Your task to perform on an android device: toggle show notifications on the lock screen Image 0: 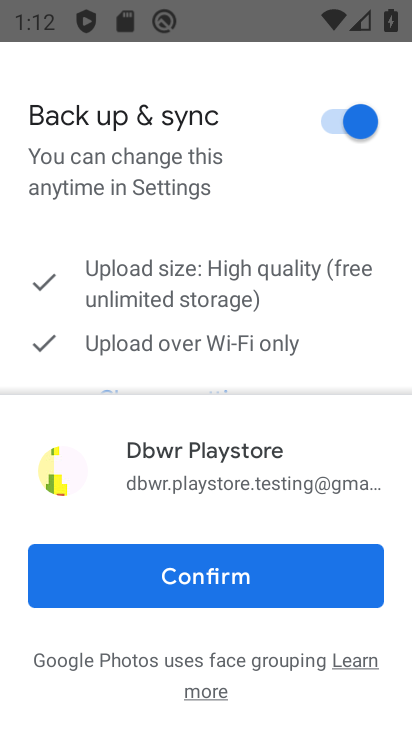
Step 0: press home button
Your task to perform on an android device: toggle show notifications on the lock screen Image 1: 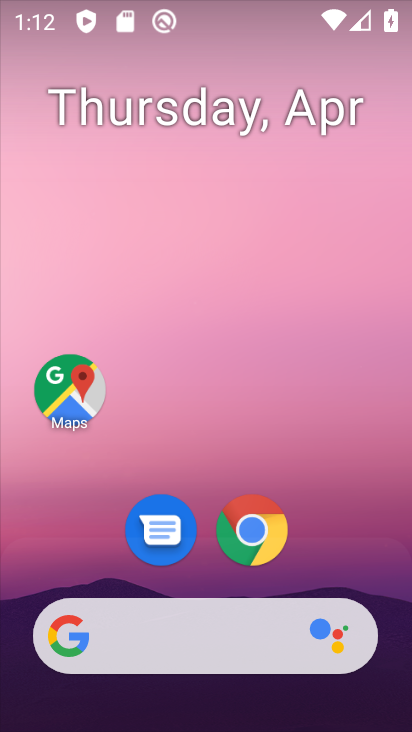
Step 1: drag from (200, 588) to (162, 8)
Your task to perform on an android device: toggle show notifications on the lock screen Image 2: 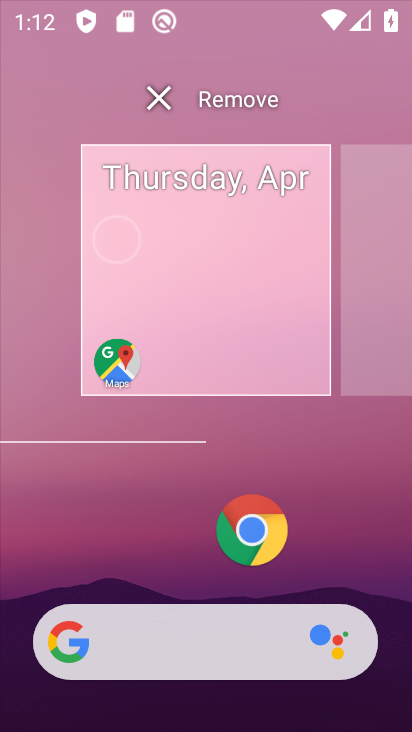
Step 2: drag from (231, 603) to (177, 10)
Your task to perform on an android device: toggle show notifications on the lock screen Image 3: 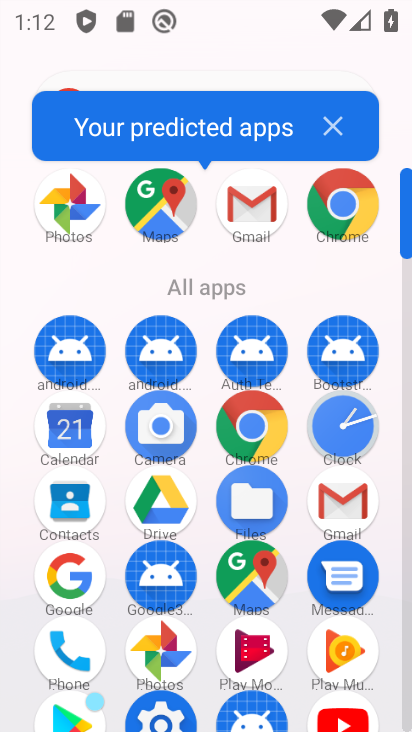
Step 3: drag from (200, 623) to (187, 163)
Your task to perform on an android device: toggle show notifications on the lock screen Image 4: 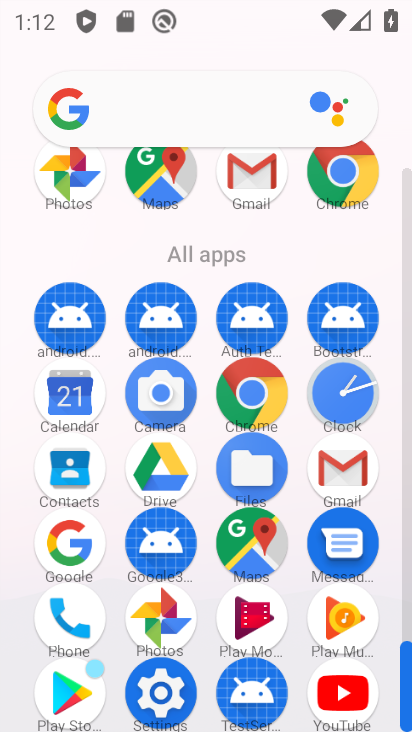
Step 4: click (169, 678)
Your task to perform on an android device: toggle show notifications on the lock screen Image 5: 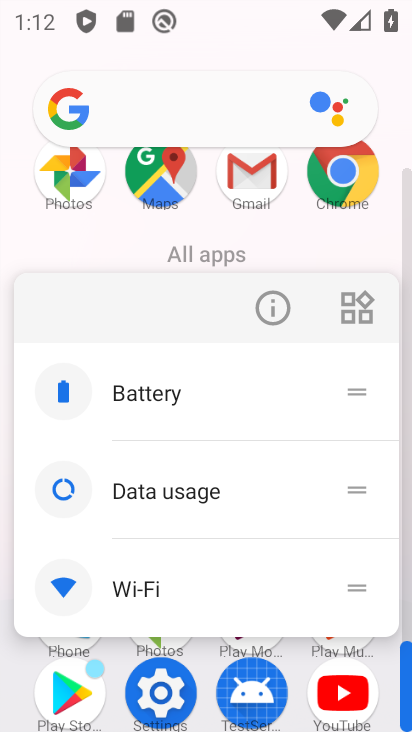
Step 5: click (163, 698)
Your task to perform on an android device: toggle show notifications on the lock screen Image 6: 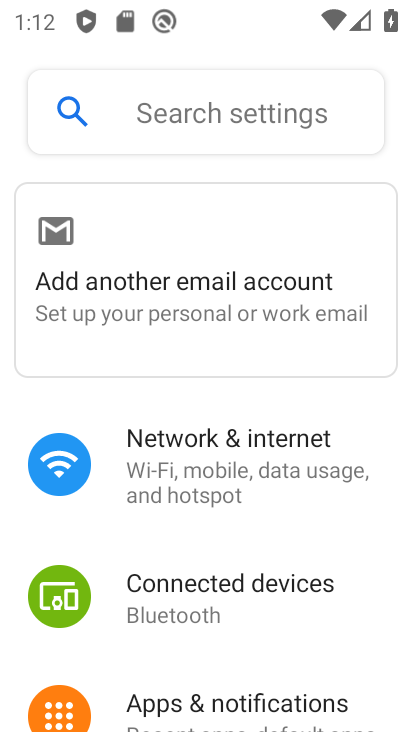
Step 6: click (206, 693)
Your task to perform on an android device: toggle show notifications on the lock screen Image 7: 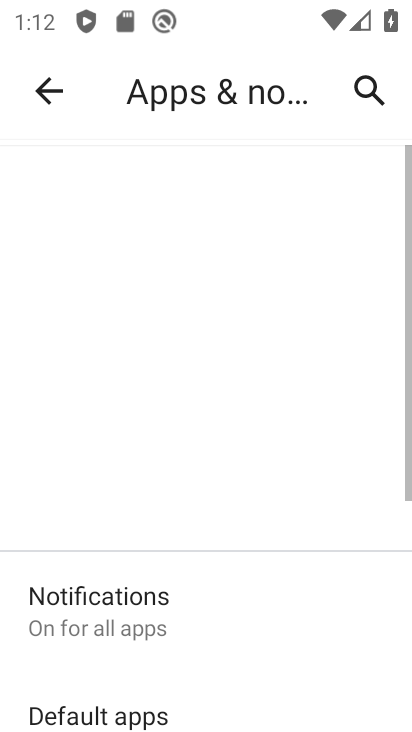
Step 7: click (132, 612)
Your task to perform on an android device: toggle show notifications on the lock screen Image 8: 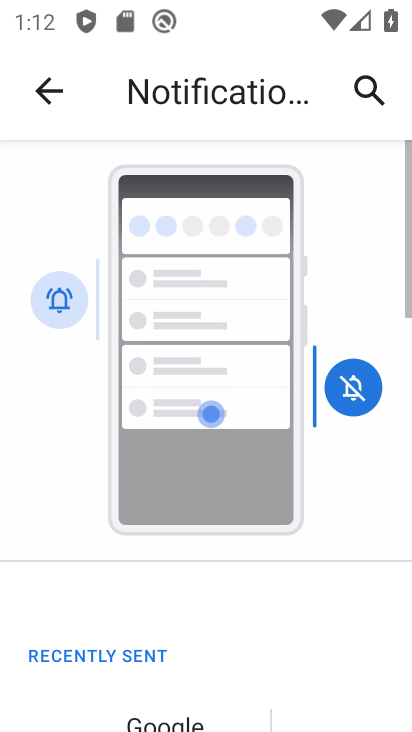
Step 8: drag from (238, 647) to (179, 56)
Your task to perform on an android device: toggle show notifications on the lock screen Image 9: 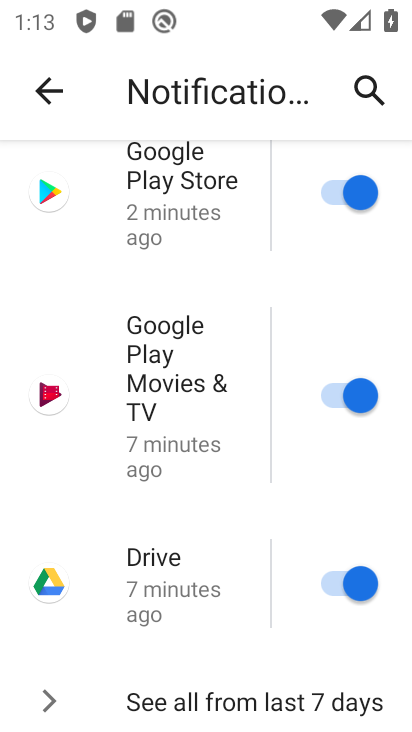
Step 9: drag from (244, 641) to (197, 143)
Your task to perform on an android device: toggle show notifications on the lock screen Image 10: 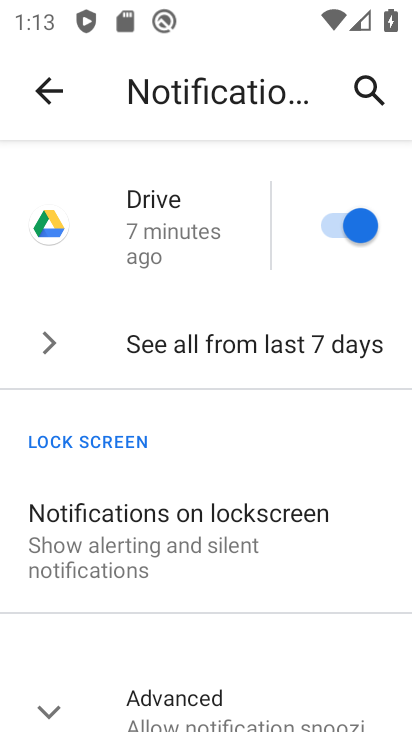
Step 10: click (223, 561)
Your task to perform on an android device: toggle show notifications on the lock screen Image 11: 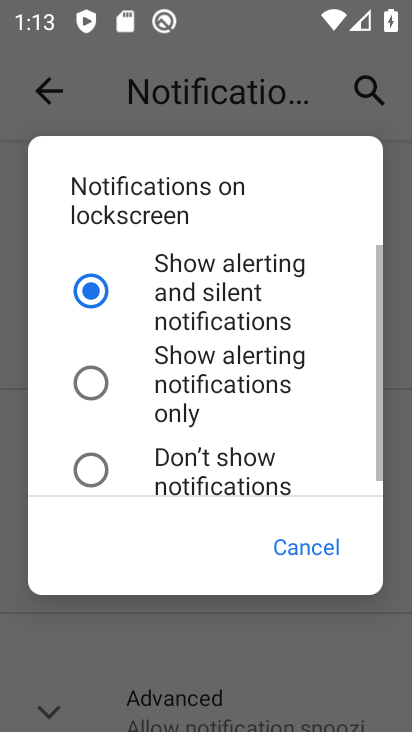
Step 11: click (218, 252)
Your task to perform on an android device: toggle show notifications on the lock screen Image 12: 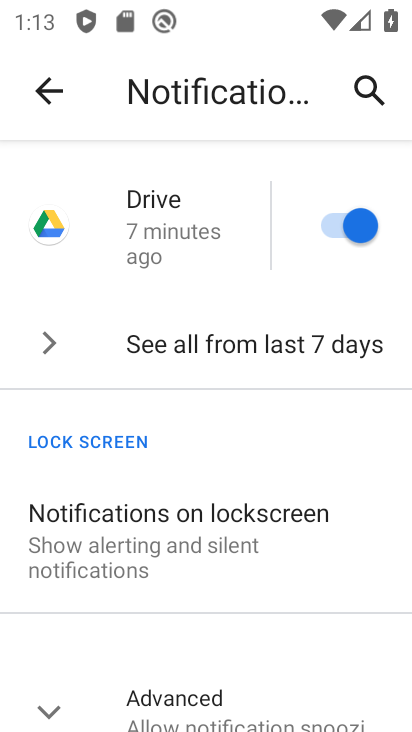
Step 12: task complete